Your task to perform on an android device: install app "Facebook" Image 0: 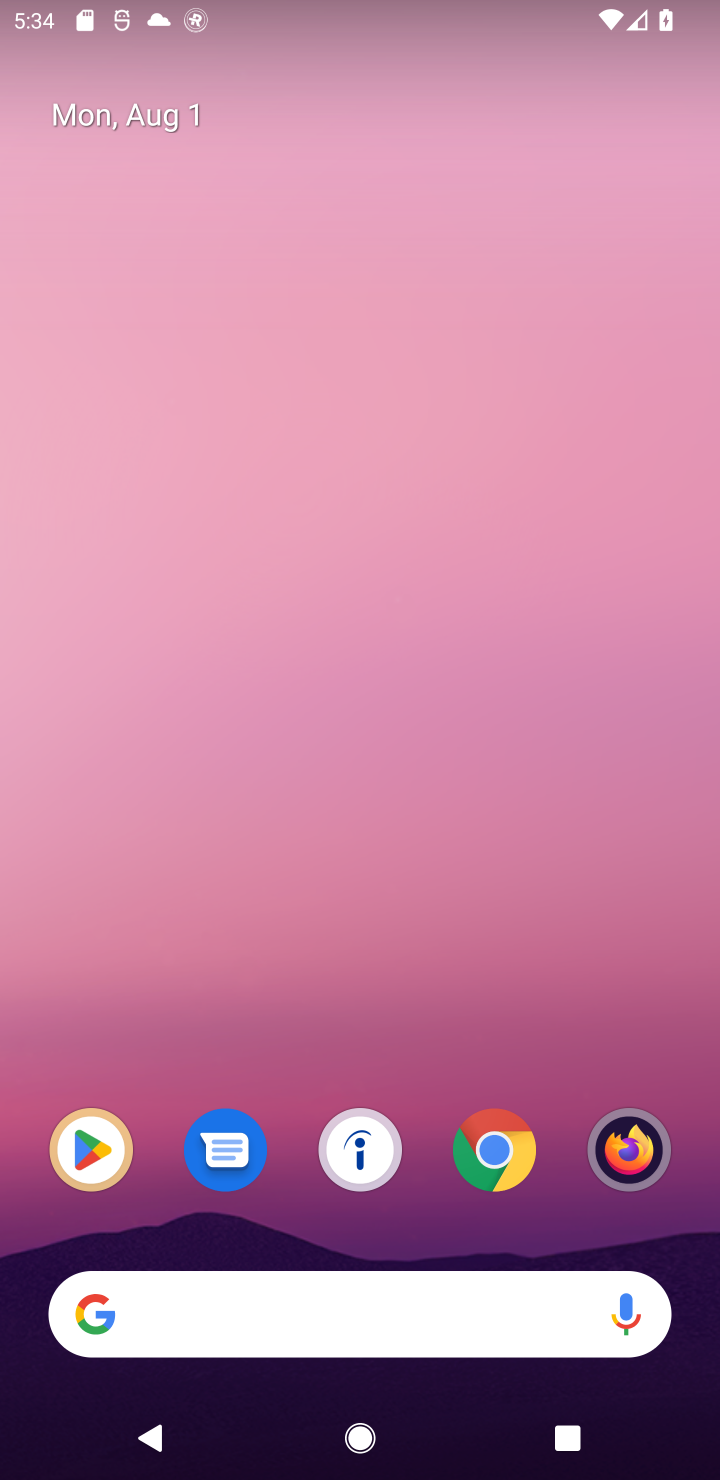
Step 0: drag from (309, 1250) to (214, 286)
Your task to perform on an android device: install app "Facebook" Image 1: 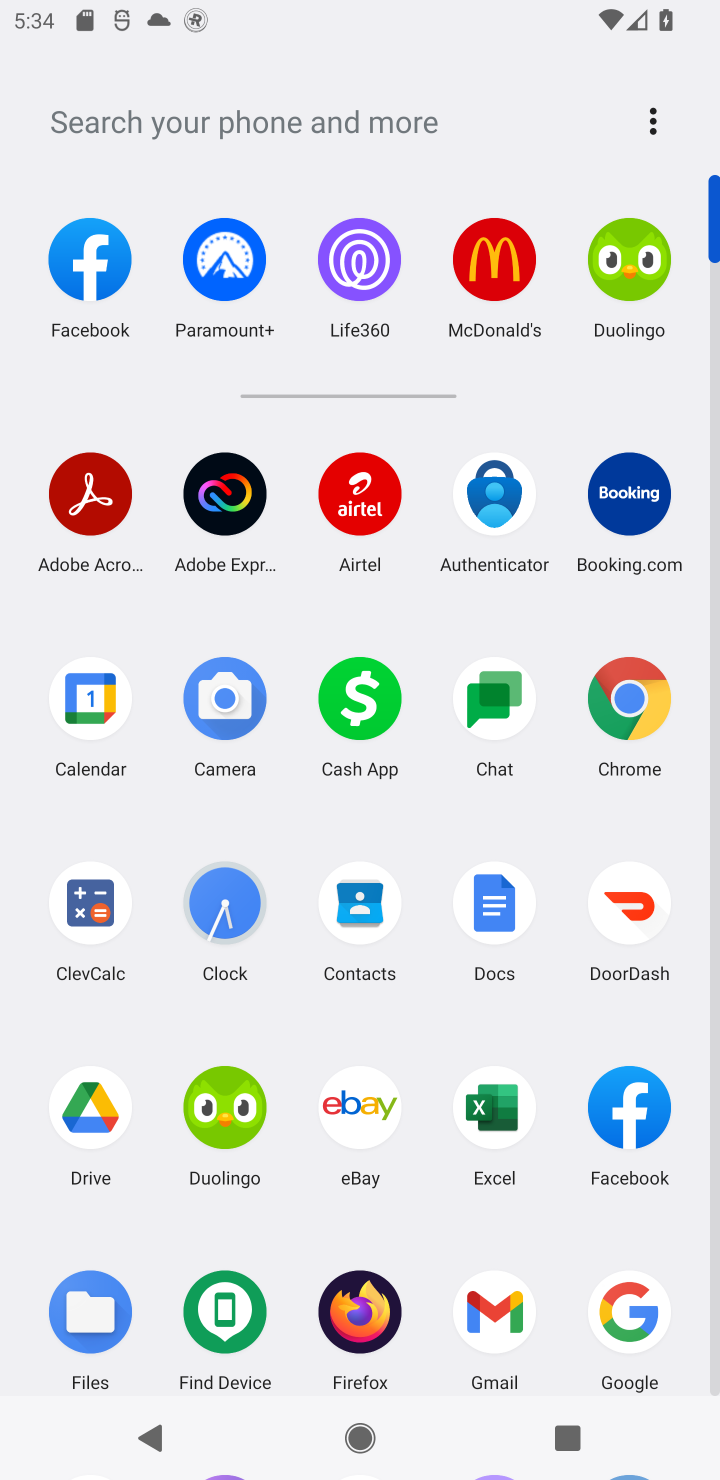
Step 1: click (7, 317)
Your task to perform on an android device: install app "Facebook" Image 2: 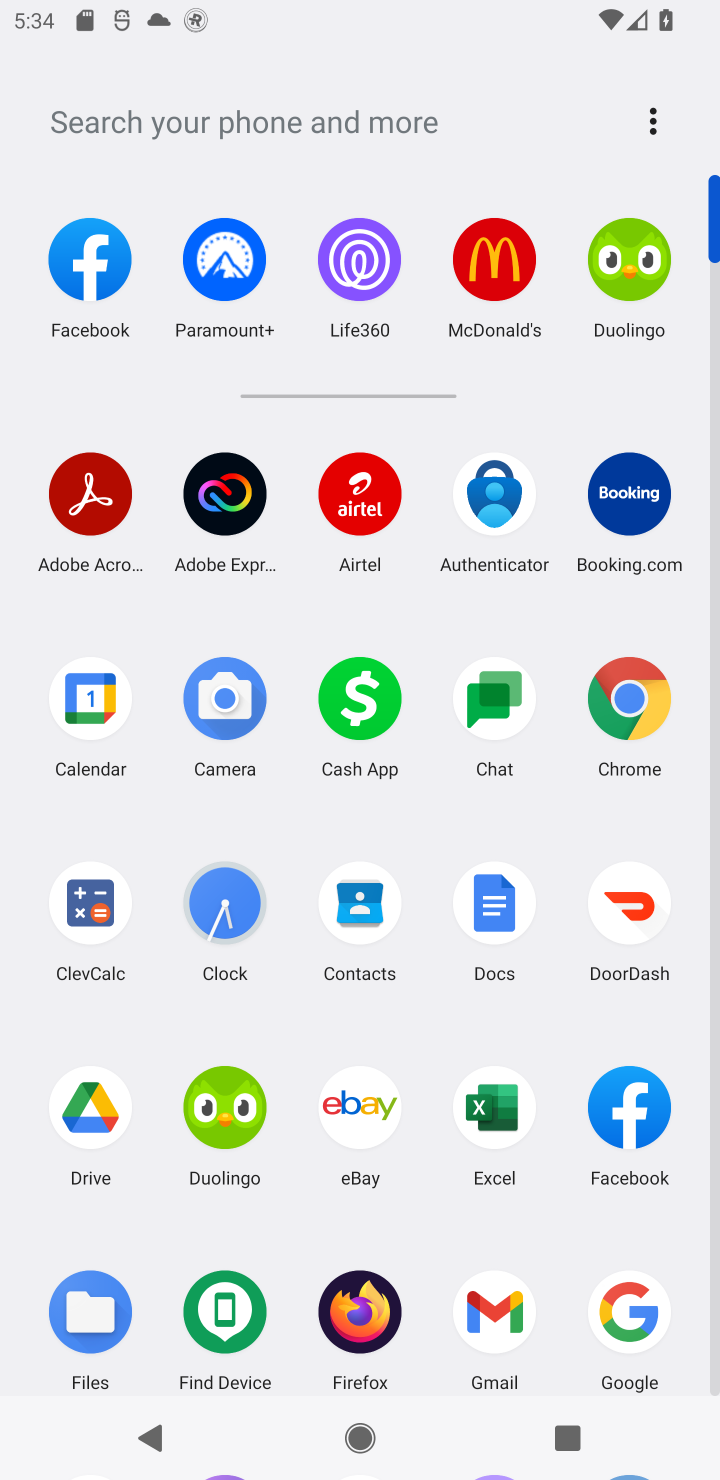
Step 2: task complete